Your task to perform on an android device: change the clock style Image 0: 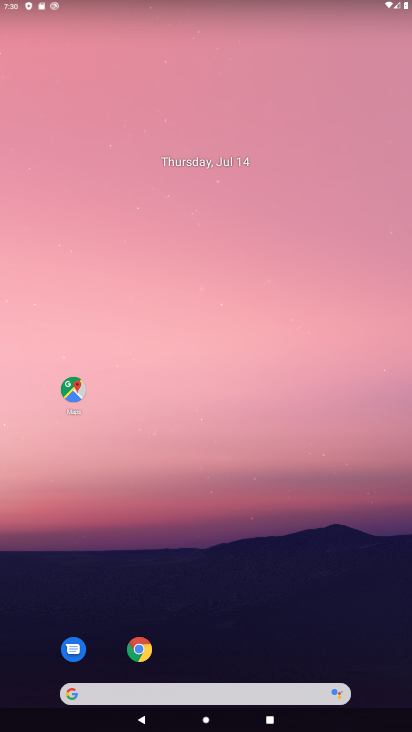
Step 0: drag from (218, 609) to (171, 40)
Your task to perform on an android device: change the clock style Image 1: 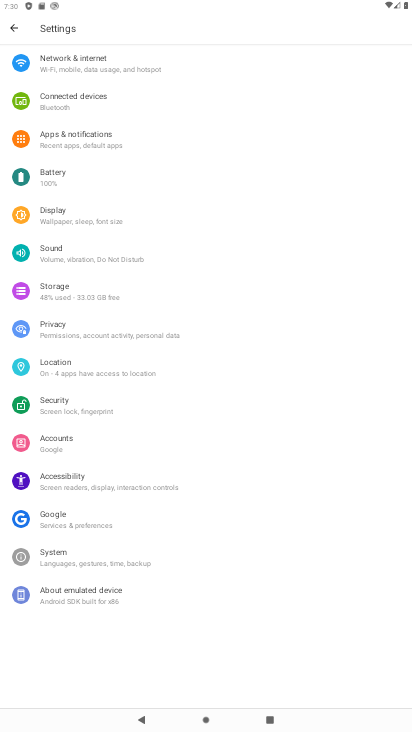
Step 1: press home button
Your task to perform on an android device: change the clock style Image 2: 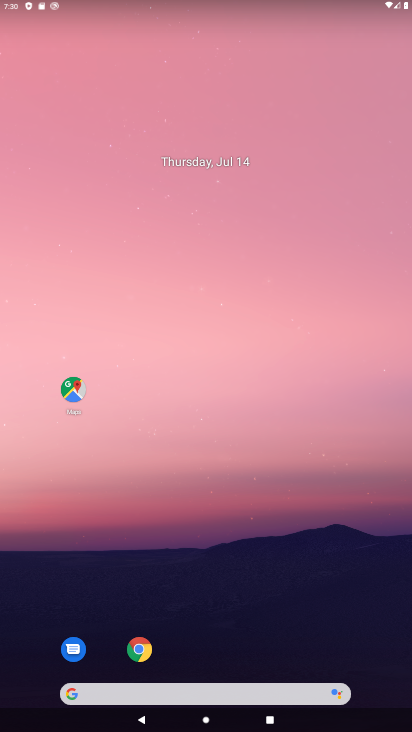
Step 2: drag from (244, 633) to (214, 2)
Your task to perform on an android device: change the clock style Image 3: 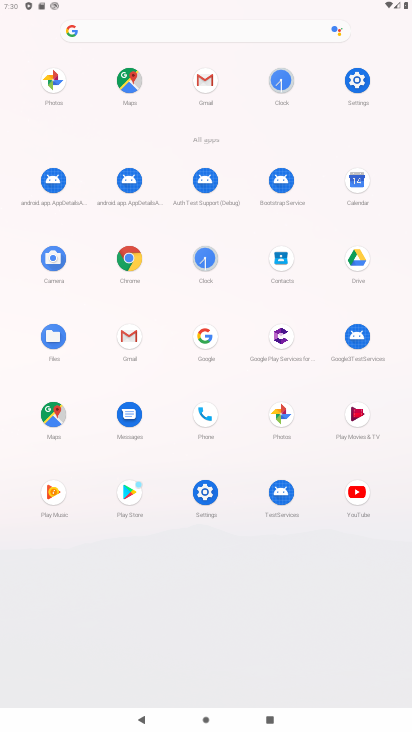
Step 3: click (285, 77)
Your task to perform on an android device: change the clock style Image 4: 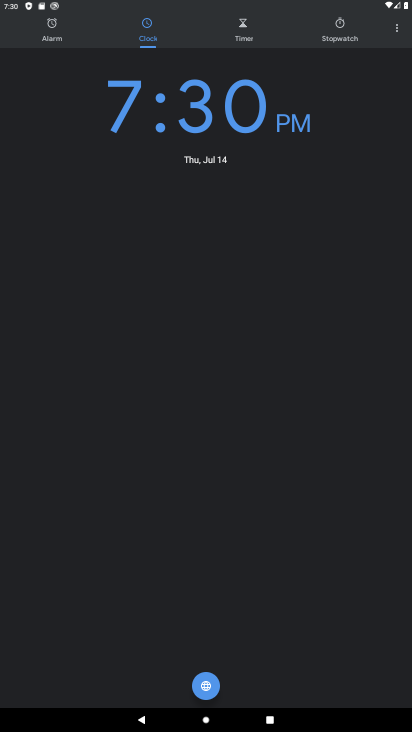
Step 4: click (388, 29)
Your task to perform on an android device: change the clock style Image 5: 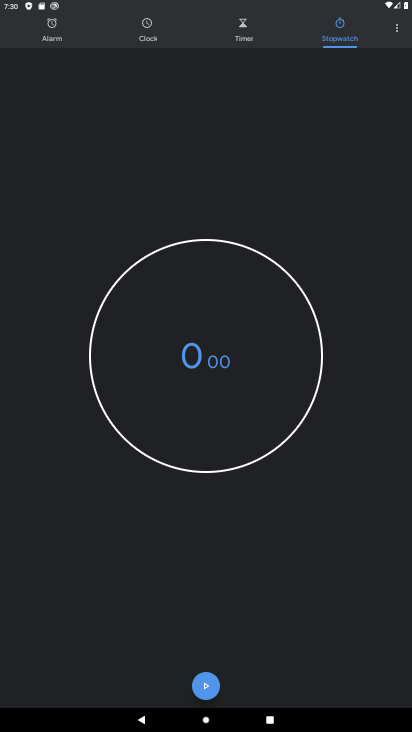
Step 5: click (396, 32)
Your task to perform on an android device: change the clock style Image 6: 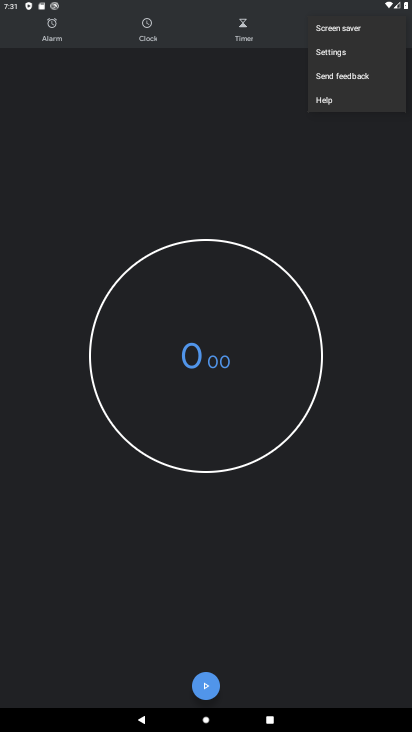
Step 6: click (321, 61)
Your task to perform on an android device: change the clock style Image 7: 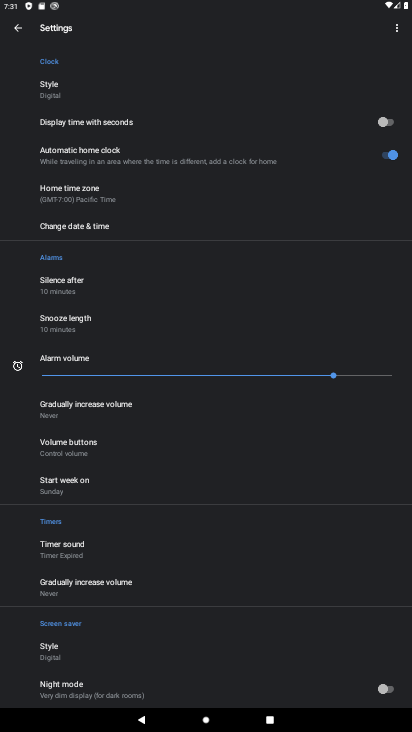
Step 7: click (33, 94)
Your task to perform on an android device: change the clock style Image 8: 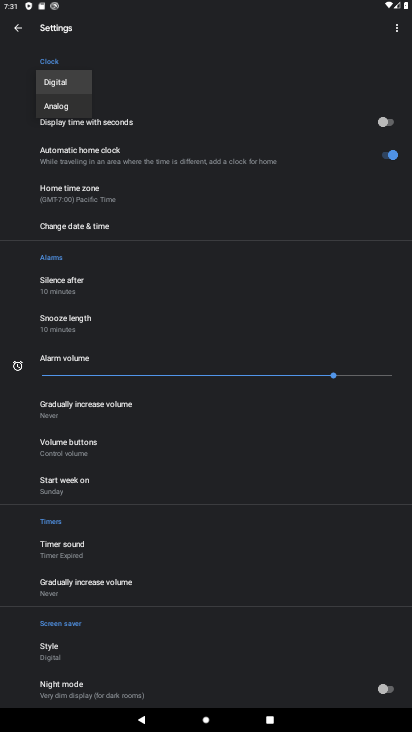
Step 8: click (58, 105)
Your task to perform on an android device: change the clock style Image 9: 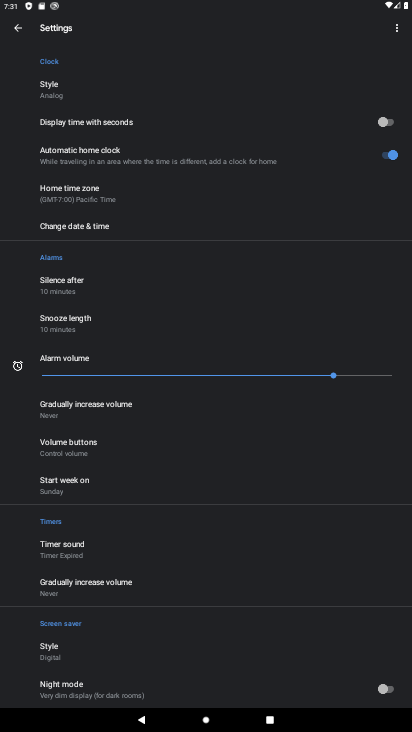
Step 9: task complete